Your task to perform on an android device: remove spam from my inbox in the gmail app Image 0: 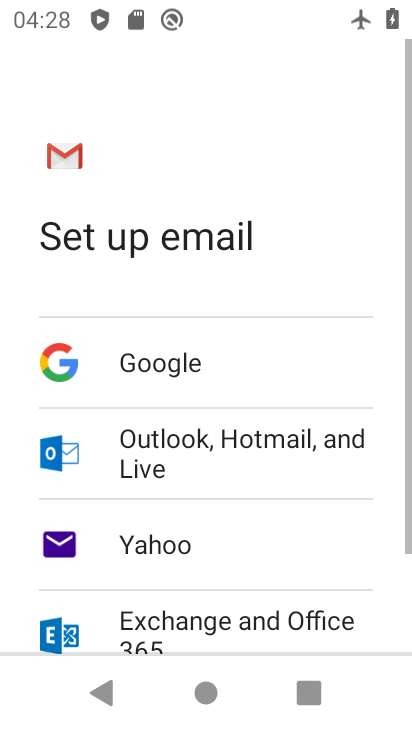
Step 0: press home button
Your task to perform on an android device: remove spam from my inbox in the gmail app Image 1: 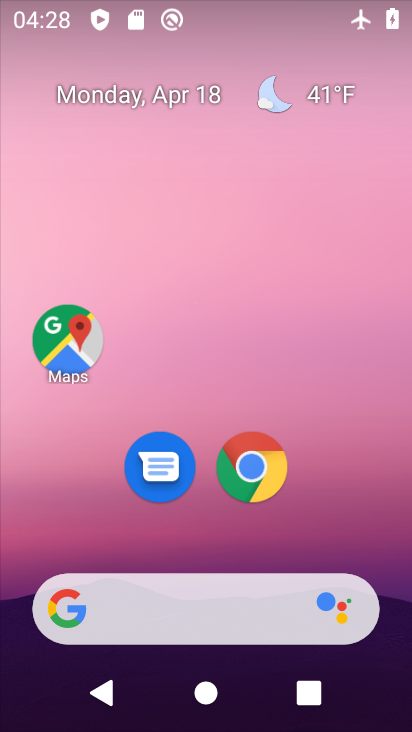
Step 1: drag from (158, 552) to (160, 244)
Your task to perform on an android device: remove spam from my inbox in the gmail app Image 2: 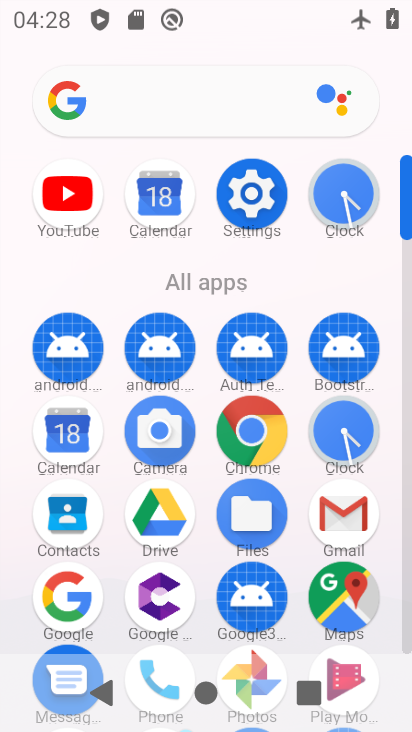
Step 2: click (319, 505)
Your task to perform on an android device: remove spam from my inbox in the gmail app Image 3: 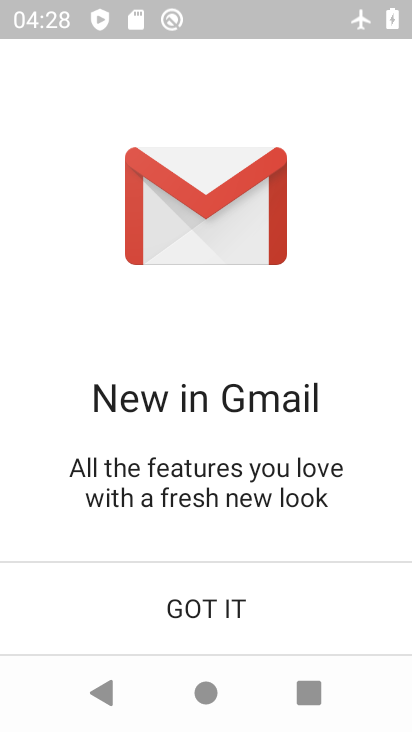
Step 3: click (94, 601)
Your task to perform on an android device: remove spam from my inbox in the gmail app Image 4: 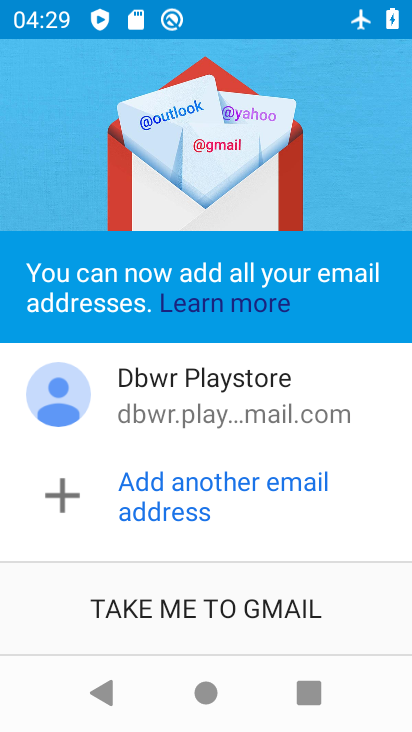
Step 4: click (94, 601)
Your task to perform on an android device: remove spam from my inbox in the gmail app Image 5: 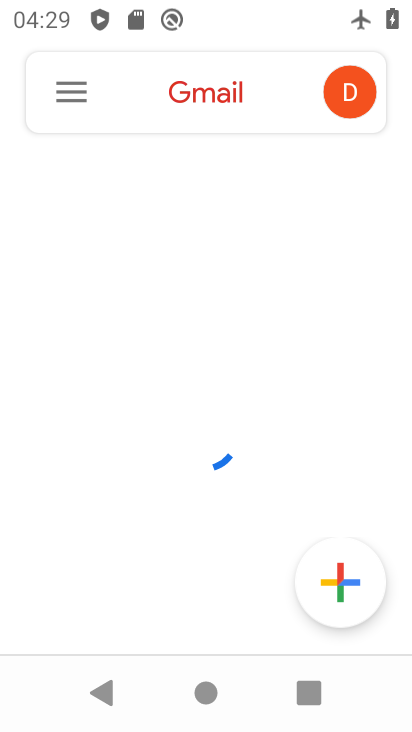
Step 5: click (34, 149)
Your task to perform on an android device: remove spam from my inbox in the gmail app Image 6: 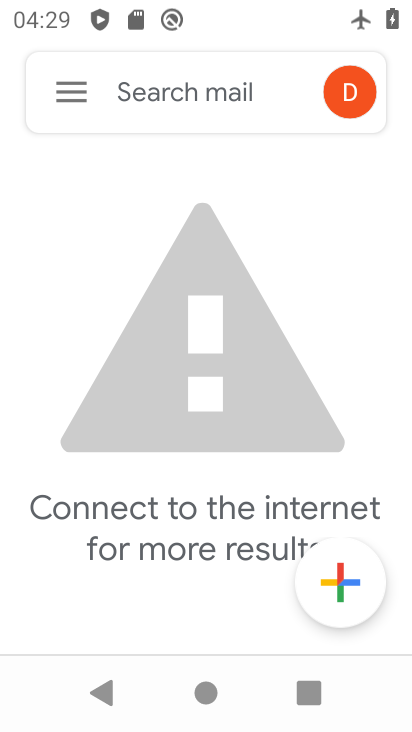
Step 6: click (62, 98)
Your task to perform on an android device: remove spam from my inbox in the gmail app Image 7: 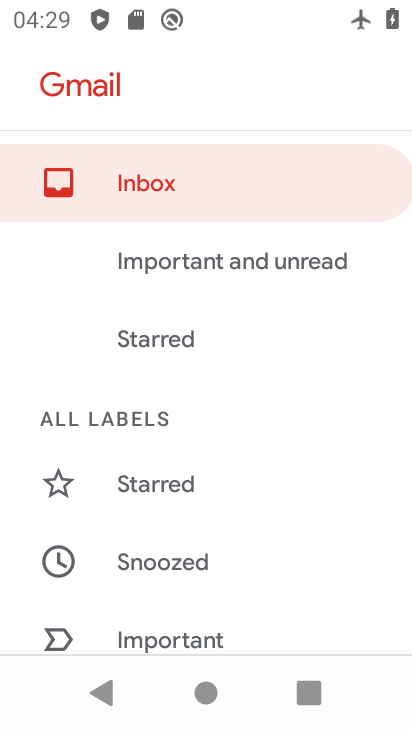
Step 7: drag from (225, 555) to (256, 280)
Your task to perform on an android device: remove spam from my inbox in the gmail app Image 8: 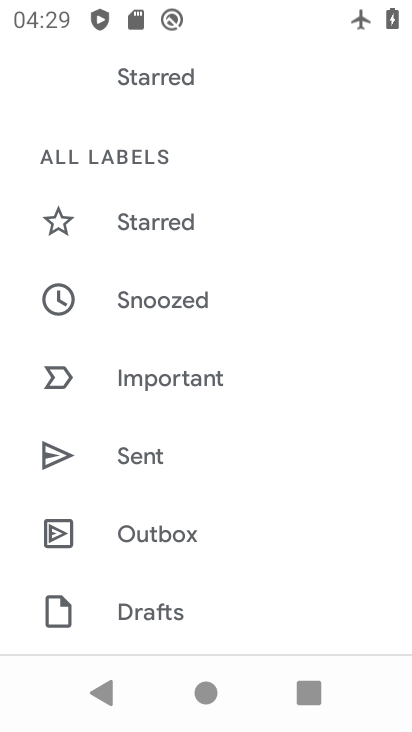
Step 8: drag from (256, 565) to (276, 333)
Your task to perform on an android device: remove spam from my inbox in the gmail app Image 9: 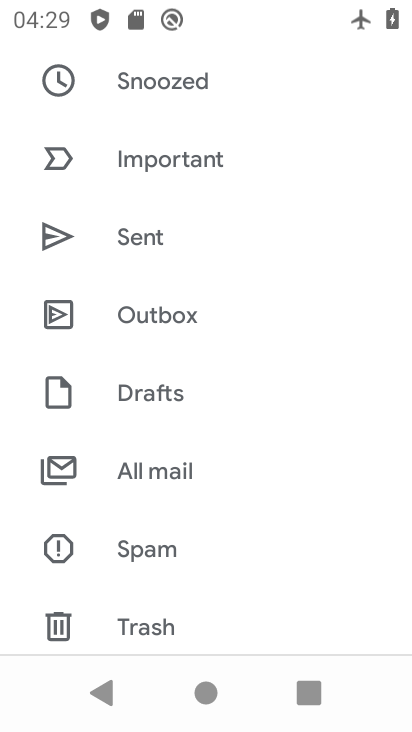
Step 9: click (169, 549)
Your task to perform on an android device: remove spam from my inbox in the gmail app Image 10: 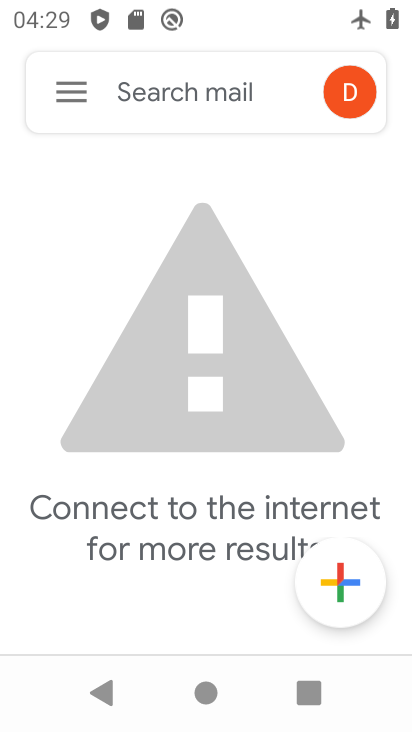
Step 10: task complete